Your task to perform on an android device: open app "Google Play services" Image 0: 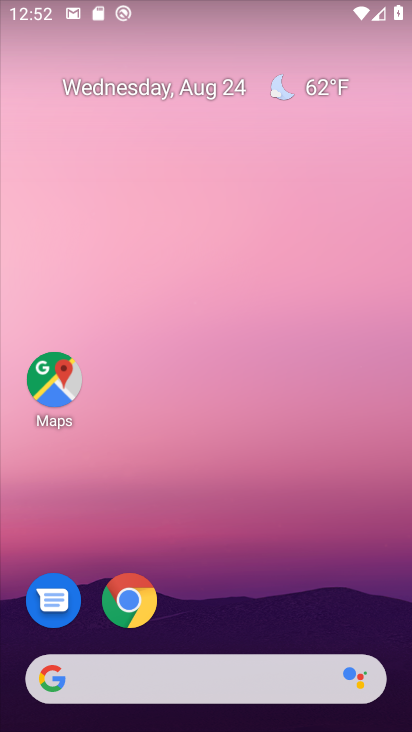
Step 0: drag from (272, 542) to (272, 91)
Your task to perform on an android device: open app "Google Play services" Image 1: 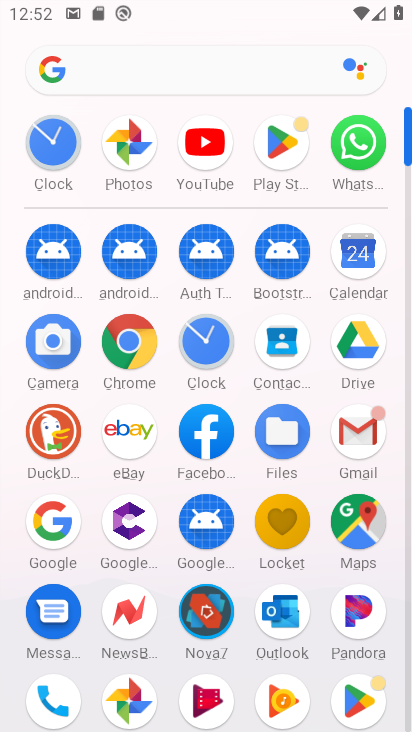
Step 1: click (355, 713)
Your task to perform on an android device: open app "Google Play services" Image 2: 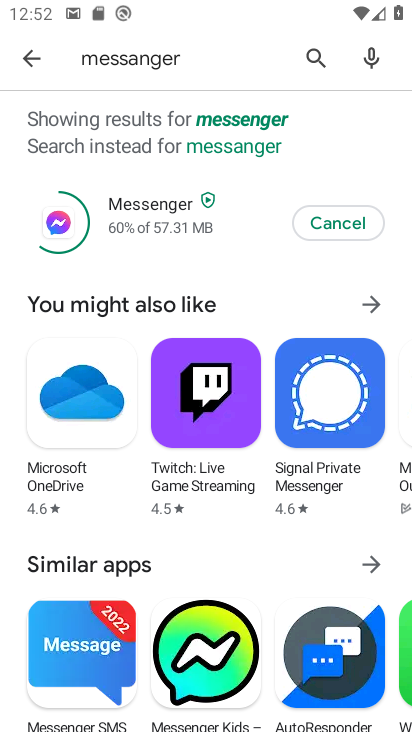
Step 2: click (301, 74)
Your task to perform on an android device: open app "Google Play services" Image 3: 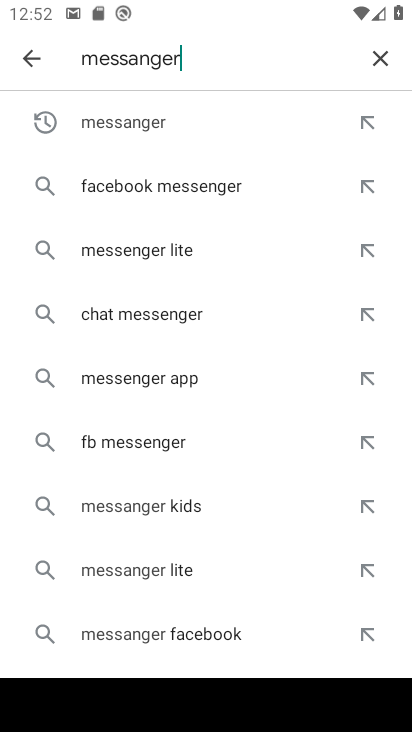
Step 3: click (376, 58)
Your task to perform on an android device: open app "Google Play services" Image 4: 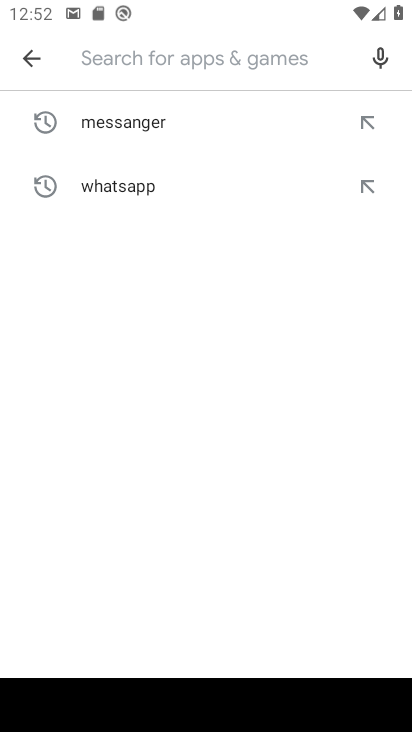
Step 4: type "google play services"
Your task to perform on an android device: open app "Google Play services" Image 5: 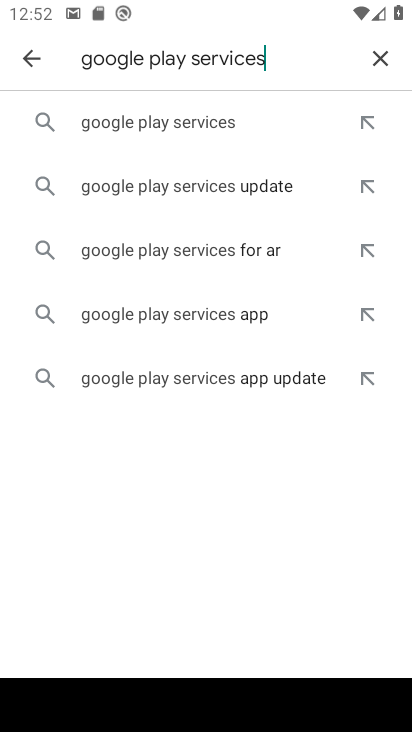
Step 5: click (244, 133)
Your task to perform on an android device: open app "Google Play services" Image 6: 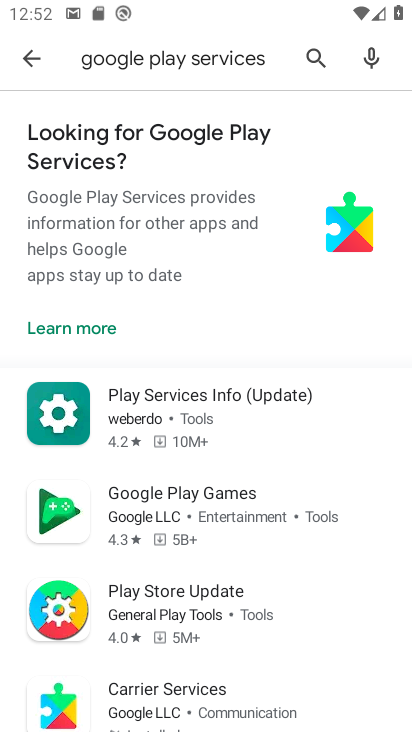
Step 6: task complete